Your task to perform on an android device: toggle show notifications on the lock screen Image 0: 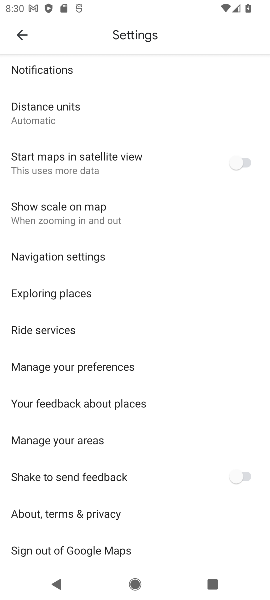
Step 0: press home button
Your task to perform on an android device: toggle show notifications on the lock screen Image 1: 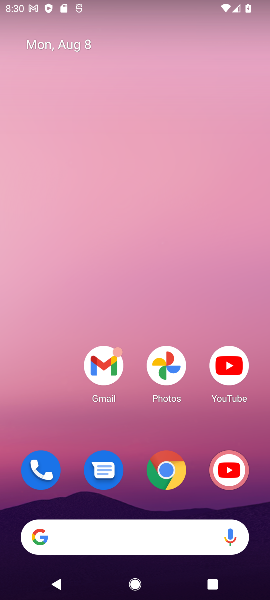
Step 1: drag from (102, 447) to (102, 152)
Your task to perform on an android device: toggle show notifications on the lock screen Image 2: 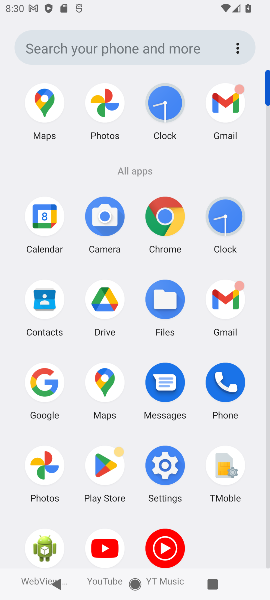
Step 2: click (156, 469)
Your task to perform on an android device: toggle show notifications on the lock screen Image 3: 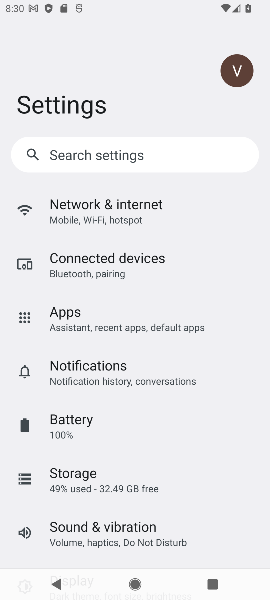
Step 3: drag from (82, 540) to (84, 273)
Your task to perform on an android device: toggle show notifications on the lock screen Image 4: 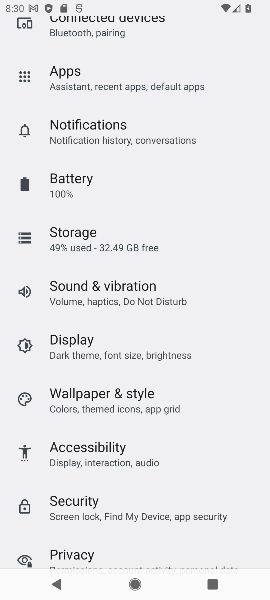
Step 4: click (73, 558)
Your task to perform on an android device: toggle show notifications on the lock screen Image 5: 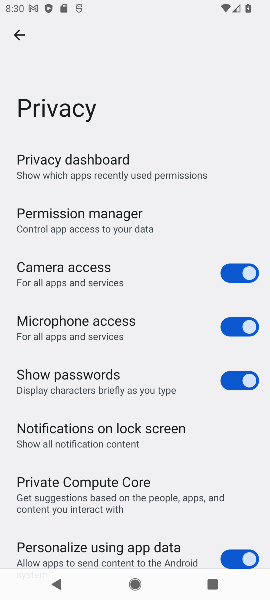
Step 5: drag from (67, 541) to (87, 272)
Your task to perform on an android device: toggle show notifications on the lock screen Image 6: 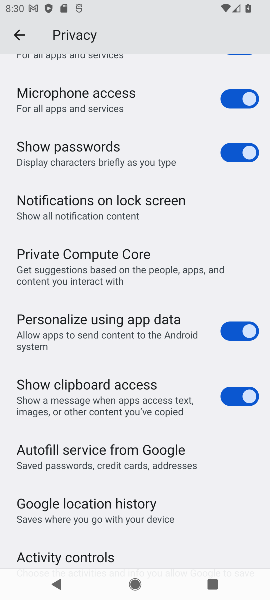
Step 6: click (79, 208)
Your task to perform on an android device: toggle show notifications on the lock screen Image 7: 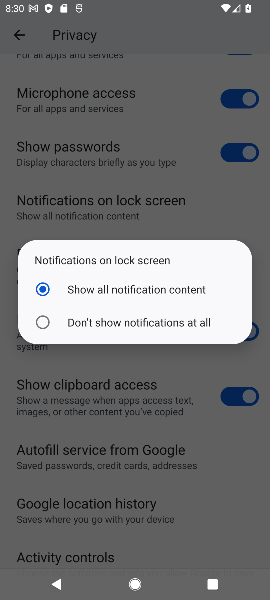
Step 7: click (92, 323)
Your task to perform on an android device: toggle show notifications on the lock screen Image 8: 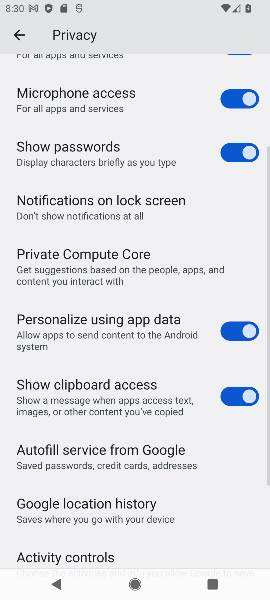
Step 8: task complete